Your task to perform on an android device: turn off wifi Image 0: 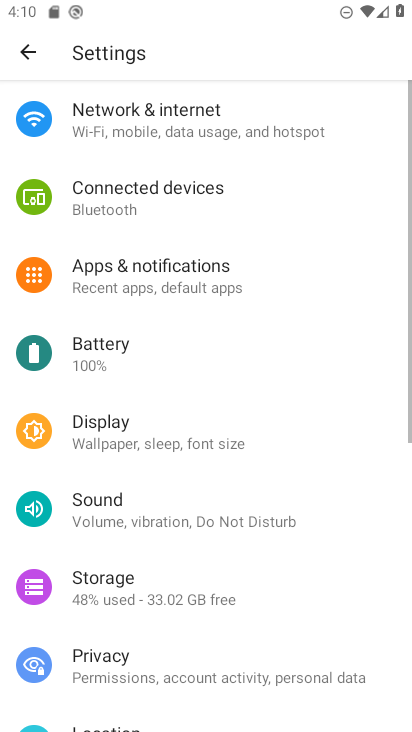
Step 0: press back button
Your task to perform on an android device: turn off wifi Image 1: 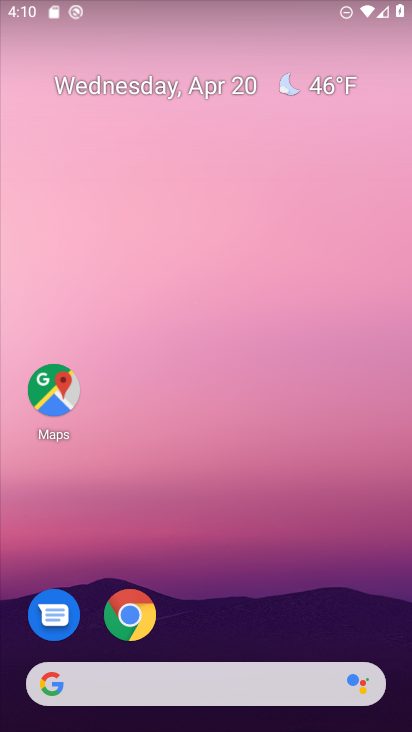
Step 1: drag from (84, 11) to (130, 447)
Your task to perform on an android device: turn off wifi Image 2: 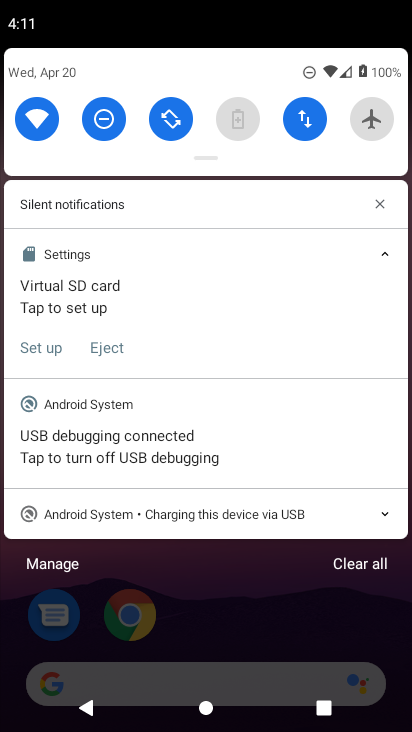
Step 2: click (28, 116)
Your task to perform on an android device: turn off wifi Image 3: 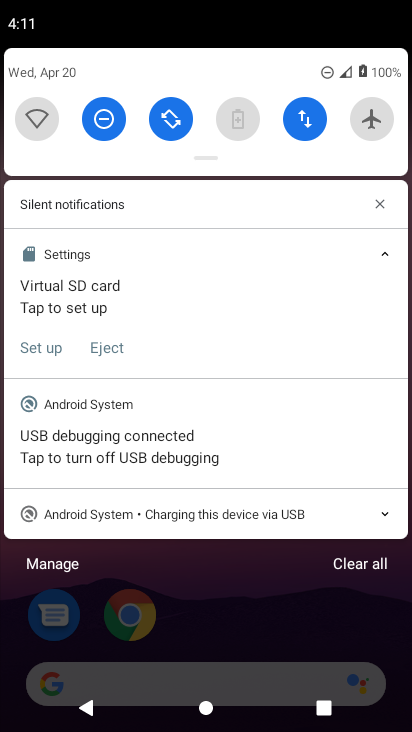
Step 3: task complete